Your task to perform on an android device: add a contact Image 0: 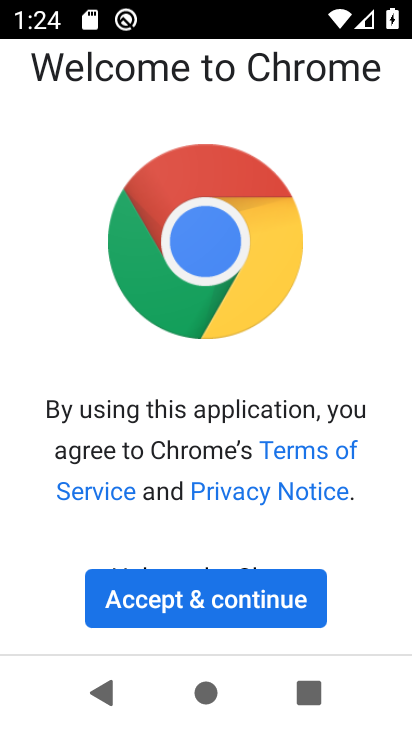
Step 0: press home button
Your task to perform on an android device: add a contact Image 1: 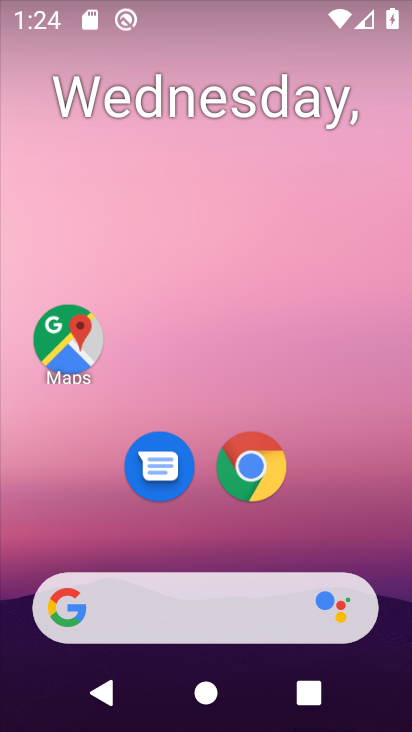
Step 1: drag from (96, 399) to (167, 73)
Your task to perform on an android device: add a contact Image 2: 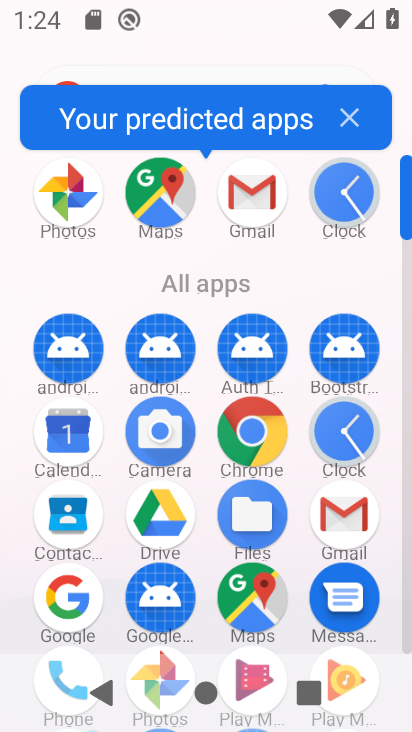
Step 2: click (86, 520)
Your task to perform on an android device: add a contact Image 3: 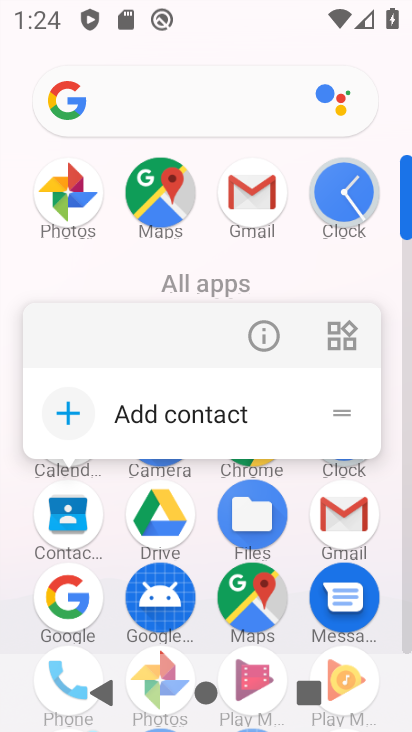
Step 3: click (69, 519)
Your task to perform on an android device: add a contact Image 4: 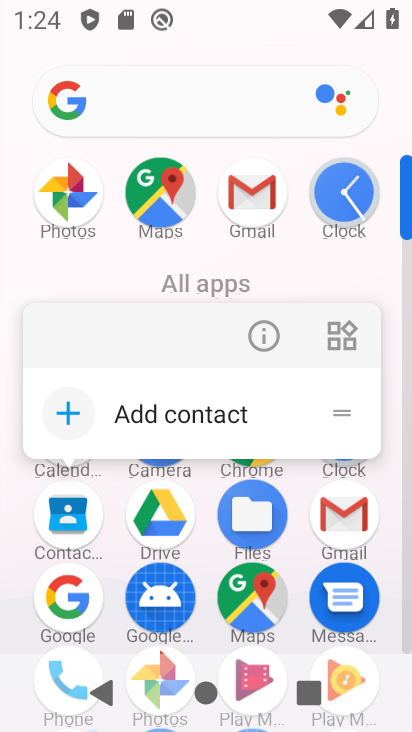
Step 4: click (65, 519)
Your task to perform on an android device: add a contact Image 5: 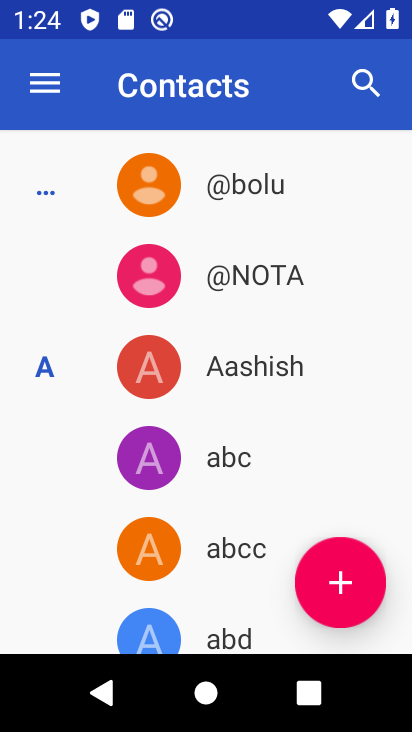
Step 5: click (337, 596)
Your task to perform on an android device: add a contact Image 6: 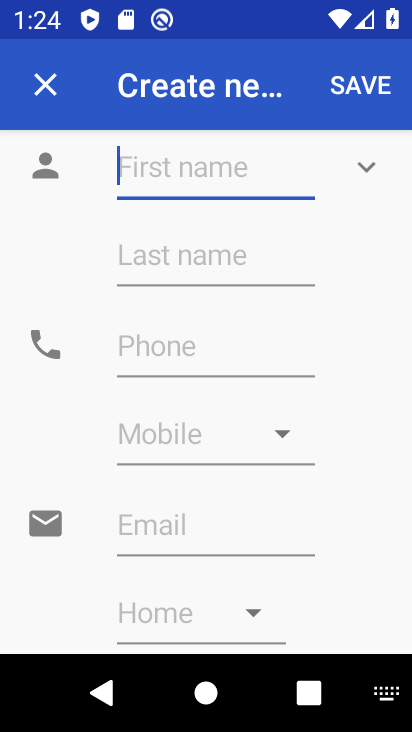
Step 6: type "yoko"
Your task to perform on an android device: add a contact Image 7: 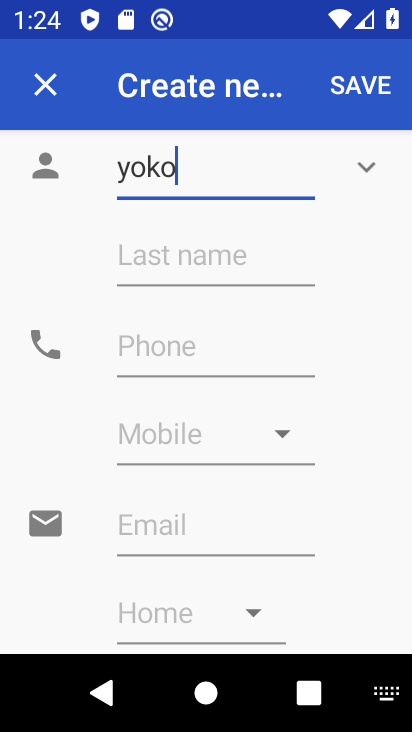
Step 7: click (175, 369)
Your task to perform on an android device: add a contact Image 8: 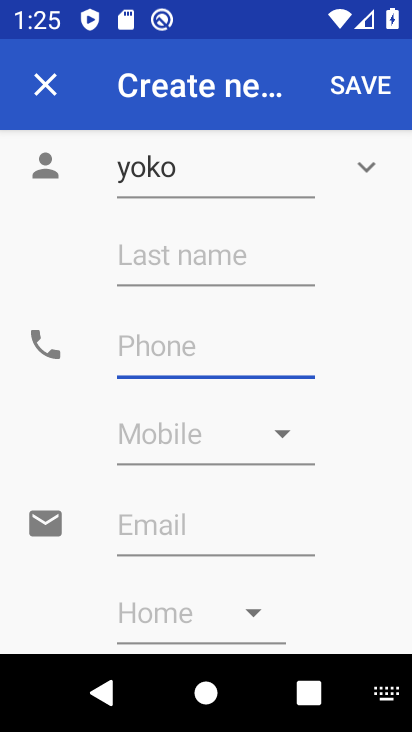
Step 8: type "98989889"
Your task to perform on an android device: add a contact Image 9: 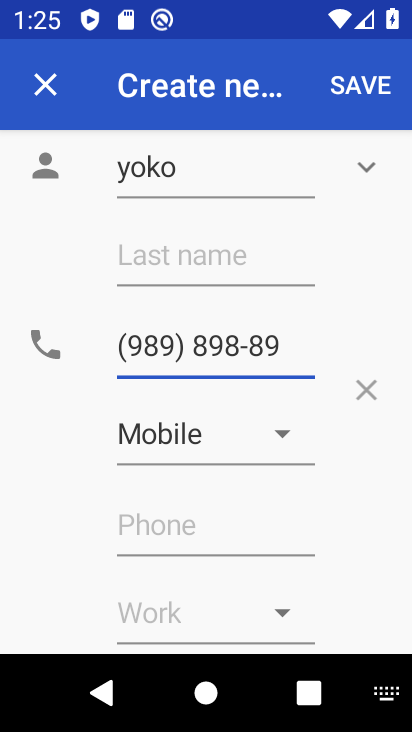
Step 9: type "99"
Your task to perform on an android device: add a contact Image 10: 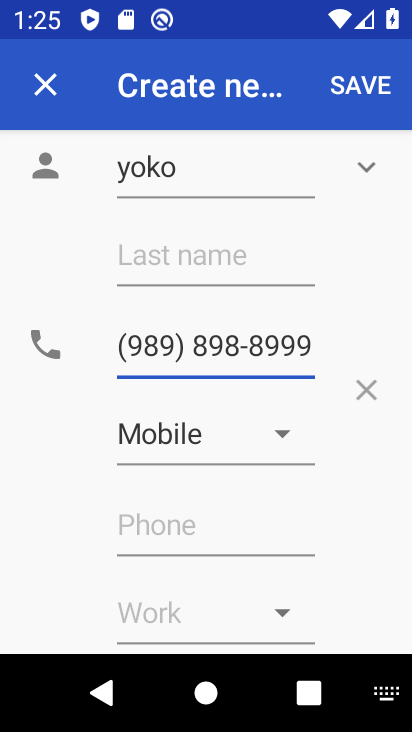
Step 10: click (384, 75)
Your task to perform on an android device: add a contact Image 11: 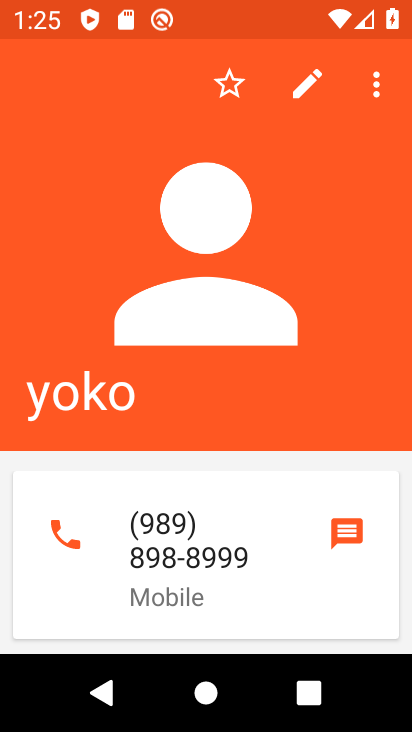
Step 11: task complete